Your task to perform on an android device: Open ESPN.com Image 0: 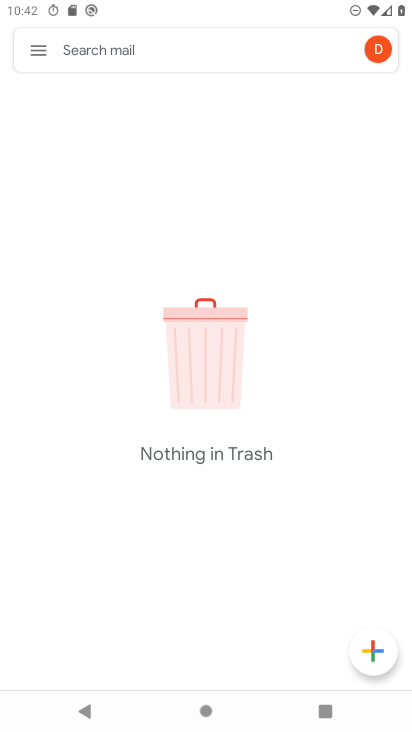
Step 0: press home button
Your task to perform on an android device: Open ESPN.com Image 1: 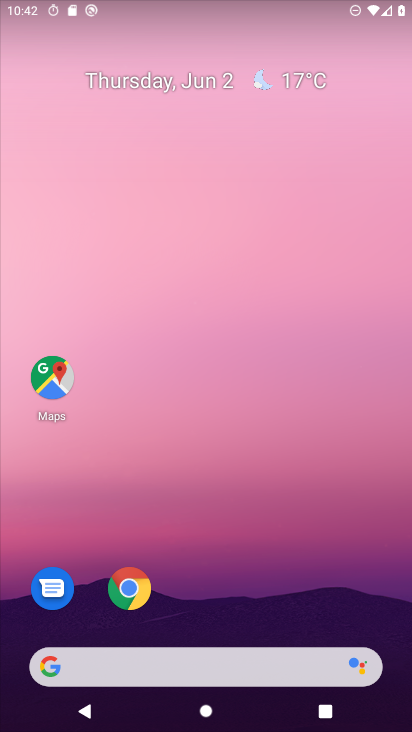
Step 1: drag from (215, 574) to (243, 396)
Your task to perform on an android device: Open ESPN.com Image 2: 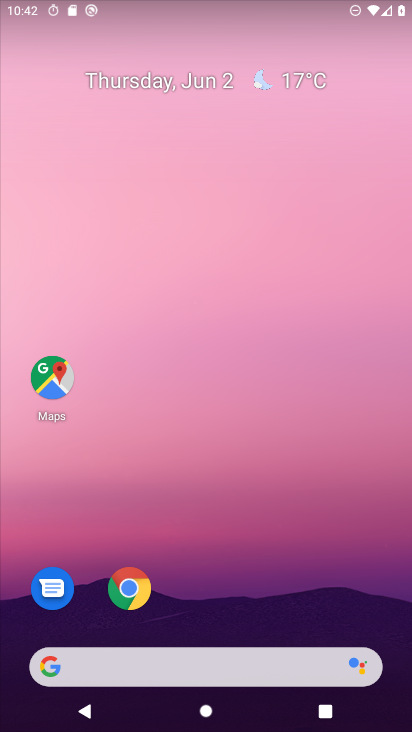
Step 2: click (146, 591)
Your task to perform on an android device: Open ESPN.com Image 3: 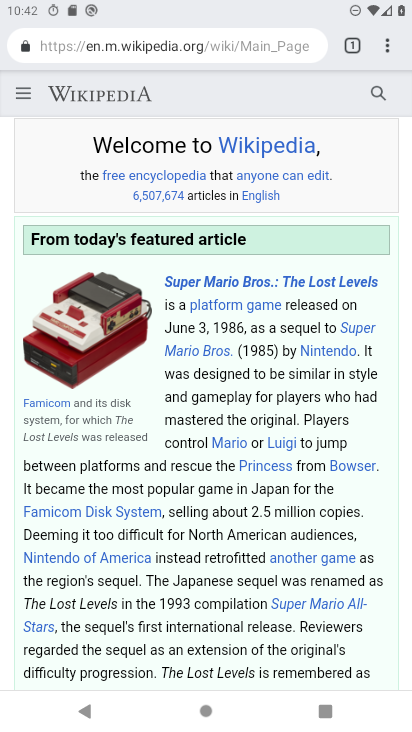
Step 3: click (260, 49)
Your task to perform on an android device: Open ESPN.com Image 4: 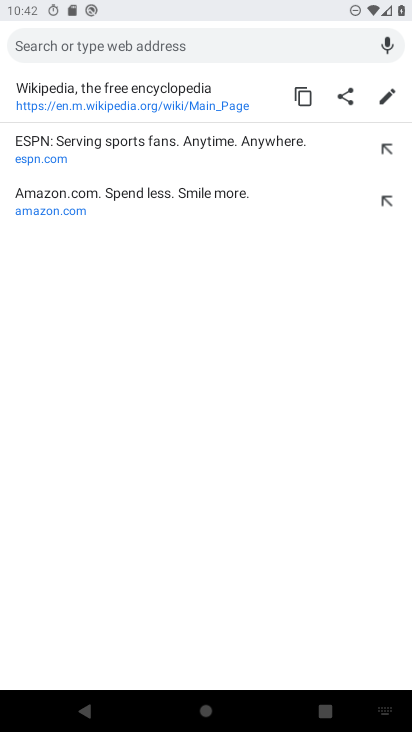
Step 4: click (206, 153)
Your task to perform on an android device: Open ESPN.com Image 5: 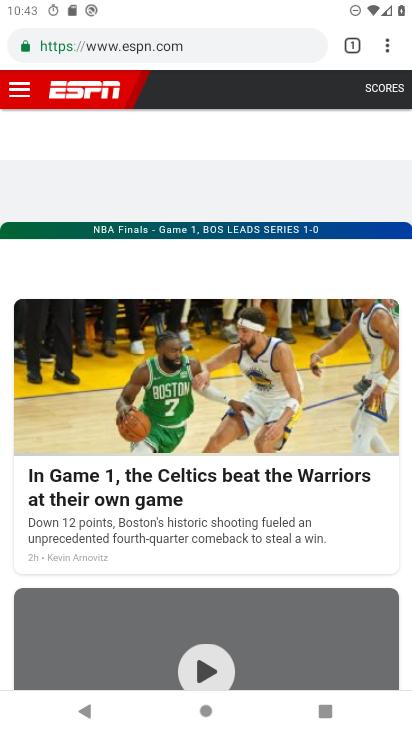
Step 5: task complete